Your task to perform on an android device: Turn on the flashlight Image 0: 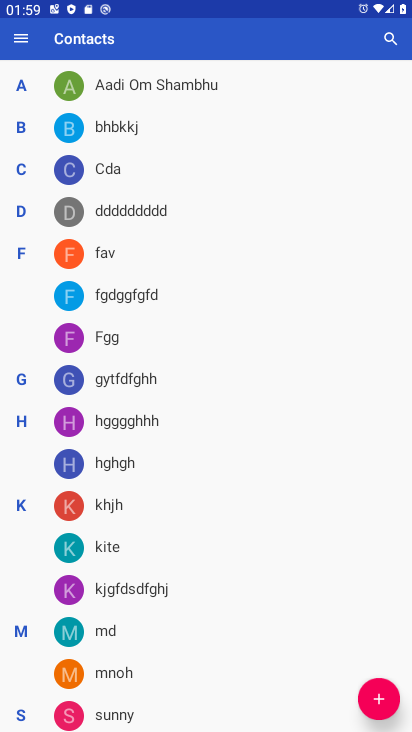
Step 0: press home button
Your task to perform on an android device: Turn on the flashlight Image 1: 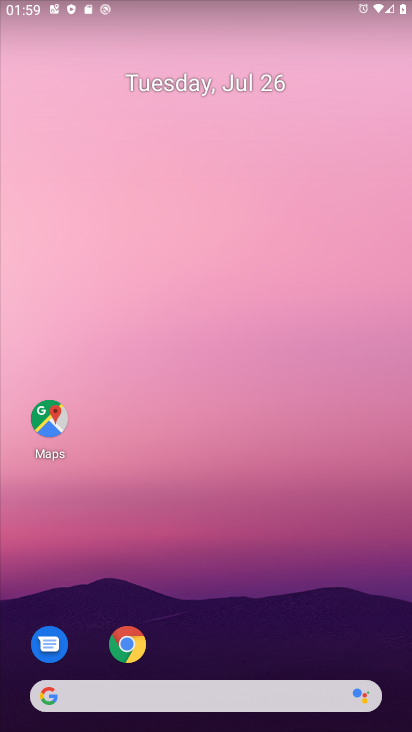
Step 1: drag from (226, 641) to (225, 288)
Your task to perform on an android device: Turn on the flashlight Image 2: 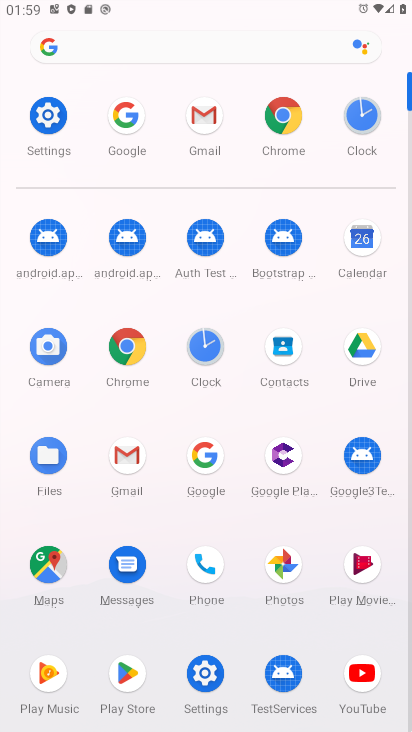
Step 2: click (46, 109)
Your task to perform on an android device: Turn on the flashlight Image 3: 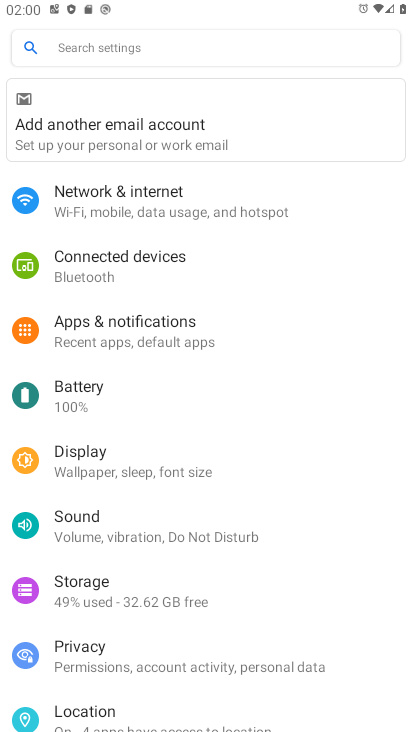
Step 3: task complete